Your task to perform on an android device: Clear the cart on walmart. Add bose quietcomfort 35 to the cart on walmart Image 0: 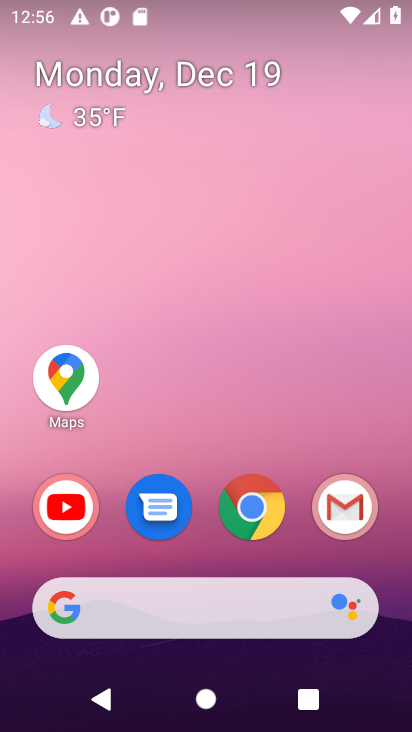
Step 0: click (247, 508)
Your task to perform on an android device: Clear the cart on walmart. Add bose quietcomfort 35 to the cart on walmart Image 1: 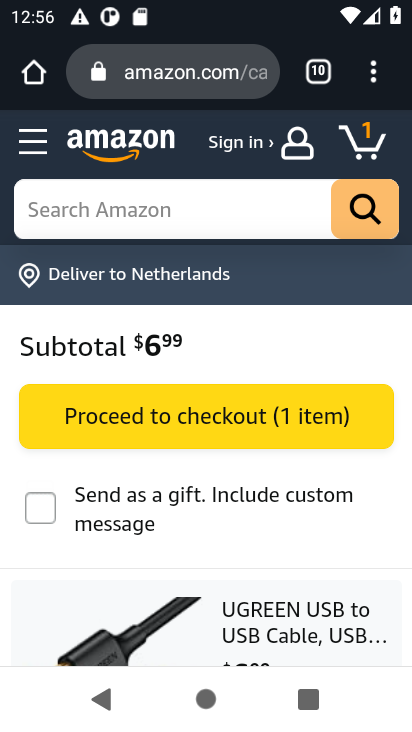
Step 1: click (161, 76)
Your task to perform on an android device: Clear the cart on walmart. Add bose quietcomfort 35 to the cart on walmart Image 2: 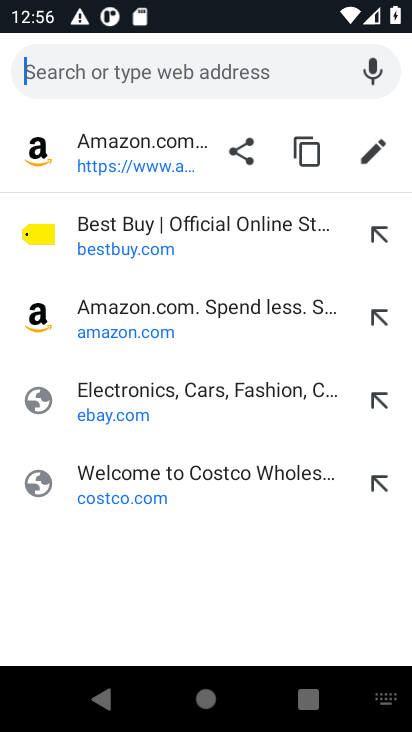
Step 2: type "walmart.com"
Your task to perform on an android device: Clear the cart on walmart. Add bose quietcomfort 35 to the cart on walmart Image 3: 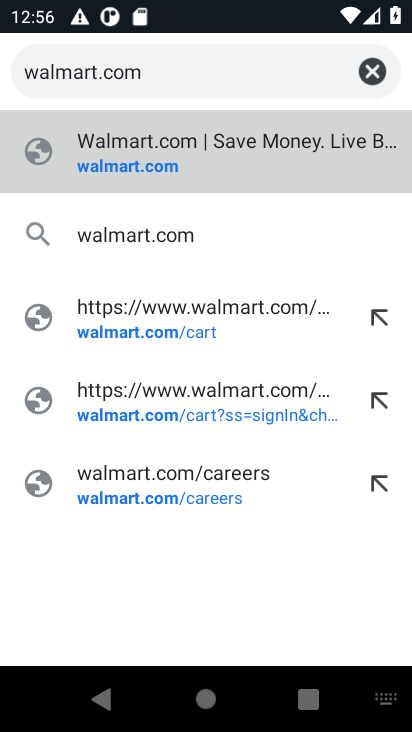
Step 3: click (148, 172)
Your task to perform on an android device: Clear the cart on walmart. Add bose quietcomfort 35 to the cart on walmart Image 4: 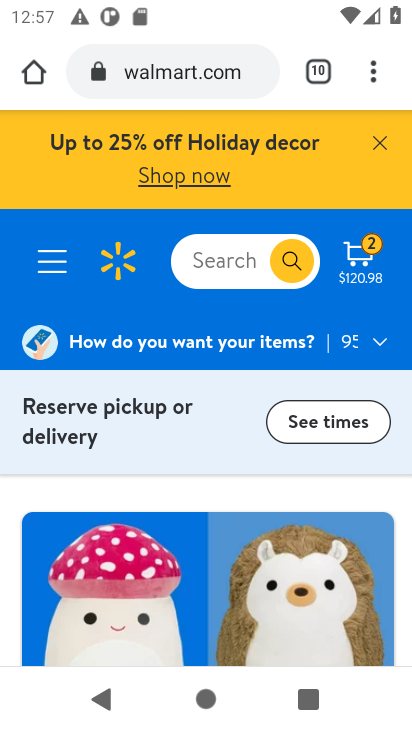
Step 4: click (355, 259)
Your task to perform on an android device: Clear the cart on walmart. Add bose quietcomfort 35 to the cart on walmart Image 5: 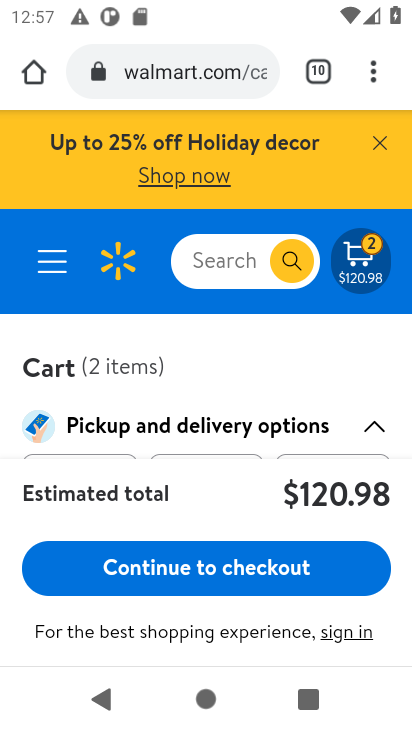
Step 5: drag from (201, 428) to (193, 235)
Your task to perform on an android device: Clear the cart on walmart. Add bose quietcomfort 35 to the cart on walmart Image 6: 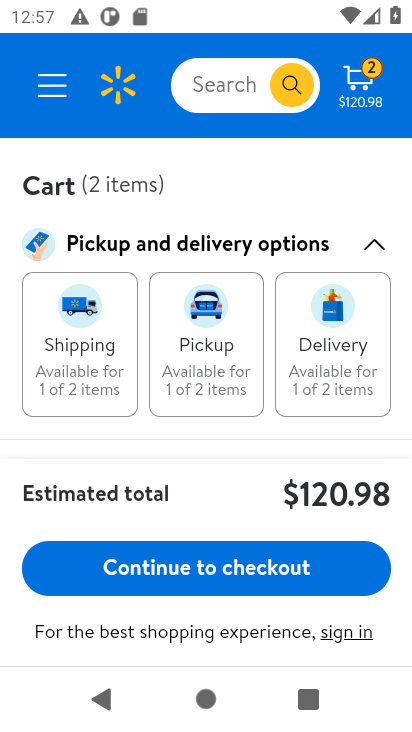
Step 6: drag from (187, 419) to (176, 153)
Your task to perform on an android device: Clear the cart on walmart. Add bose quietcomfort 35 to the cart on walmart Image 7: 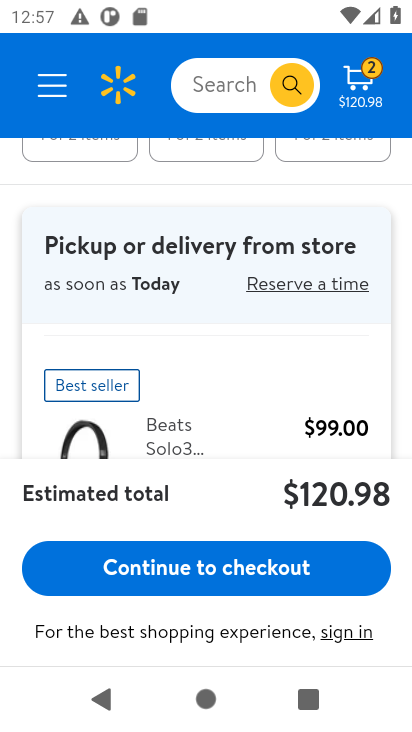
Step 7: drag from (165, 376) to (147, 133)
Your task to perform on an android device: Clear the cart on walmart. Add bose quietcomfort 35 to the cart on walmart Image 8: 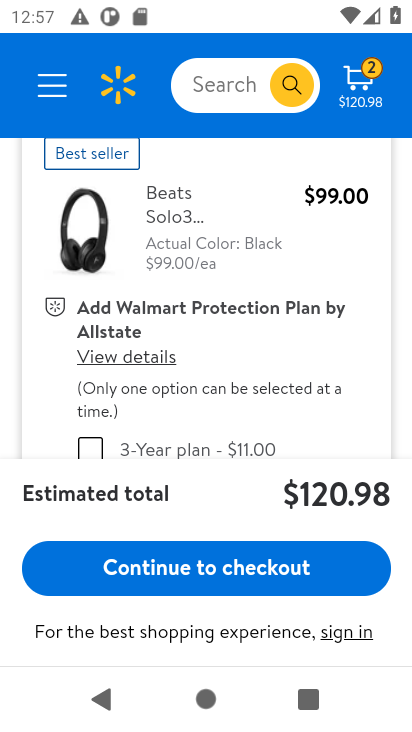
Step 8: drag from (142, 356) to (147, 148)
Your task to perform on an android device: Clear the cart on walmart. Add bose quietcomfort 35 to the cart on walmart Image 9: 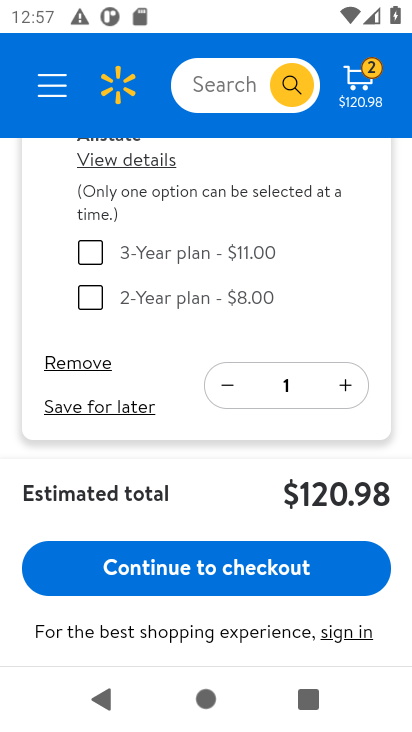
Step 9: click (72, 356)
Your task to perform on an android device: Clear the cart on walmart. Add bose quietcomfort 35 to the cart on walmart Image 10: 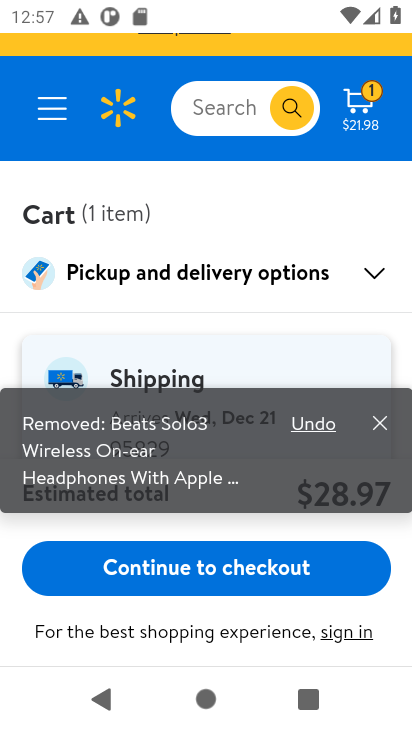
Step 10: click (377, 428)
Your task to perform on an android device: Clear the cart on walmart. Add bose quietcomfort 35 to the cart on walmart Image 11: 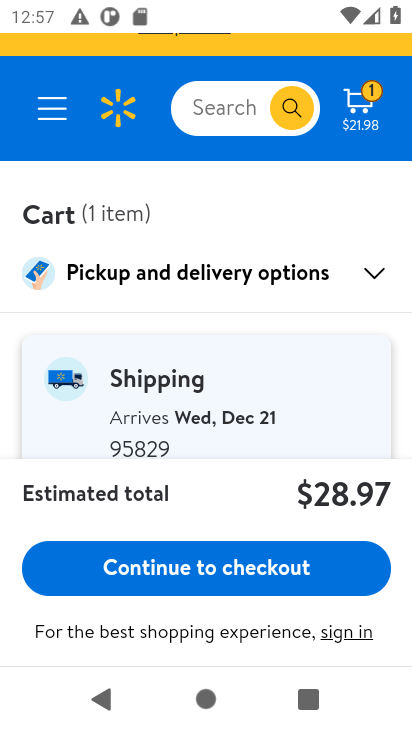
Step 11: drag from (143, 415) to (138, 151)
Your task to perform on an android device: Clear the cart on walmart. Add bose quietcomfort 35 to the cart on walmart Image 12: 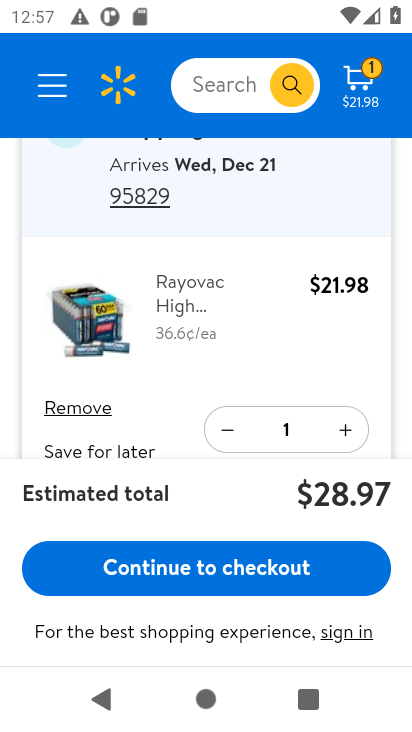
Step 12: drag from (93, 372) to (98, 218)
Your task to perform on an android device: Clear the cart on walmart. Add bose quietcomfort 35 to the cart on walmart Image 13: 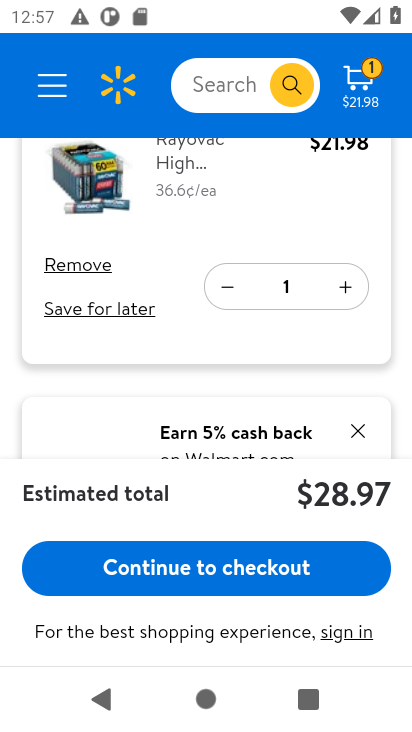
Step 13: click (73, 262)
Your task to perform on an android device: Clear the cart on walmart. Add bose quietcomfort 35 to the cart on walmart Image 14: 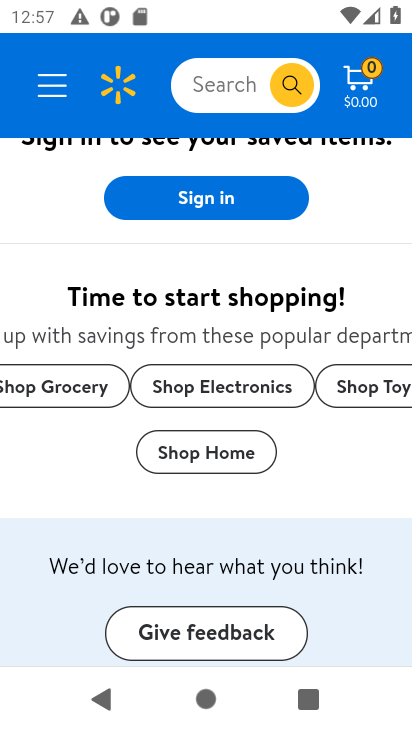
Step 14: drag from (254, 404) to (228, 682)
Your task to perform on an android device: Clear the cart on walmart. Add bose quietcomfort 35 to the cart on walmart Image 15: 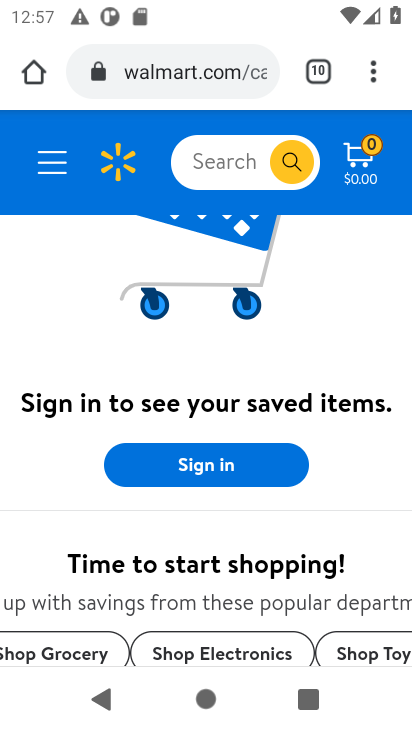
Step 15: click (219, 160)
Your task to perform on an android device: Clear the cart on walmart. Add bose quietcomfort 35 to the cart on walmart Image 16: 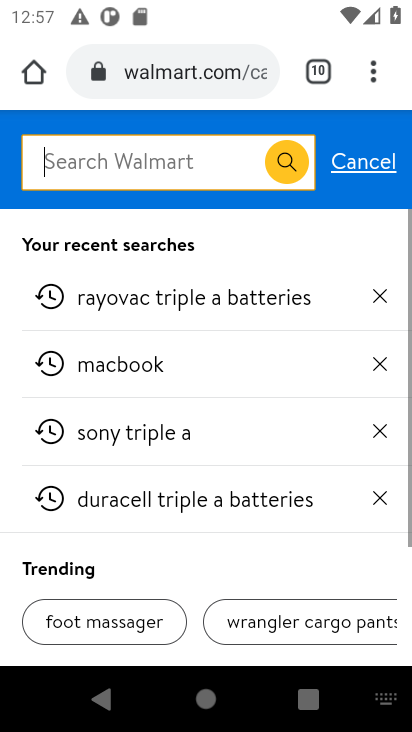
Step 16: type "bose quietcomfort 35"
Your task to perform on an android device: Clear the cart on walmart. Add bose quietcomfort 35 to the cart on walmart Image 17: 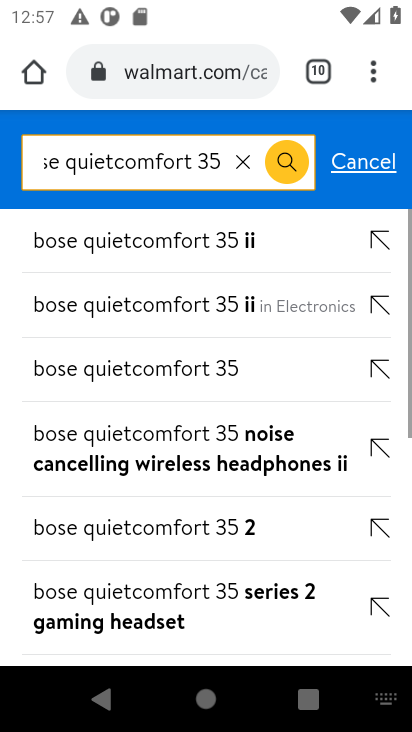
Step 17: click (215, 380)
Your task to perform on an android device: Clear the cart on walmart. Add bose quietcomfort 35 to the cart on walmart Image 18: 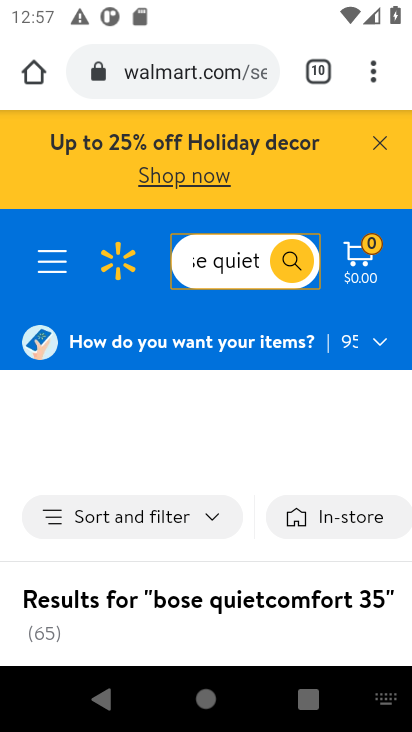
Step 18: drag from (225, 444) to (214, 208)
Your task to perform on an android device: Clear the cart on walmart. Add bose quietcomfort 35 to the cart on walmart Image 19: 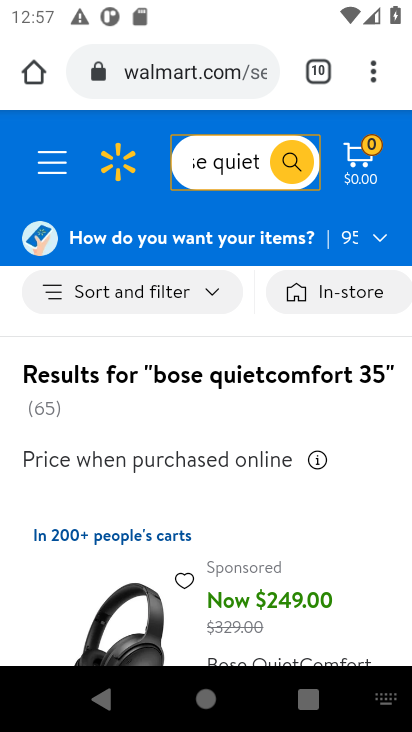
Step 19: drag from (191, 406) to (191, 193)
Your task to perform on an android device: Clear the cart on walmart. Add bose quietcomfort 35 to the cart on walmart Image 20: 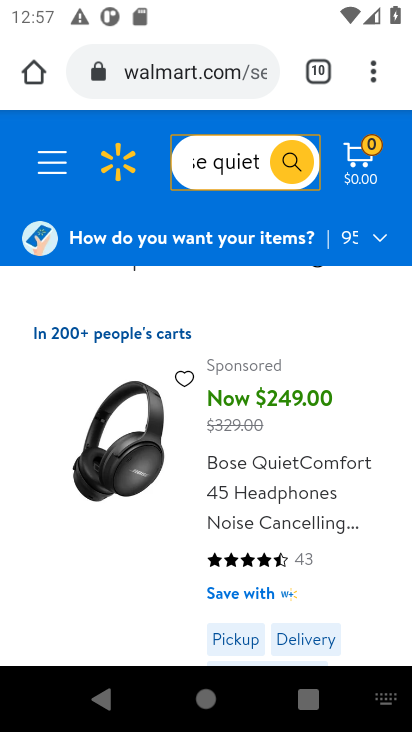
Step 20: drag from (174, 457) to (165, 218)
Your task to perform on an android device: Clear the cart on walmart. Add bose quietcomfort 35 to the cart on walmart Image 21: 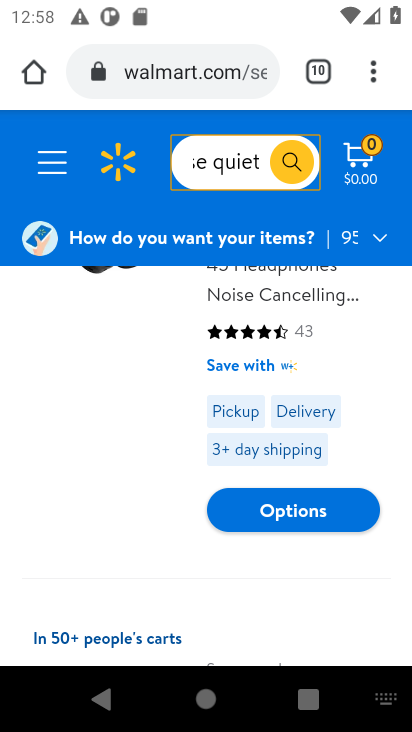
Step 21: drag from (174, 448) to (169, 163)
Your task to perform on an android device: Clear the cart on walmart. Add bose quietcomfort 35 to the cart on walmart Image 22: 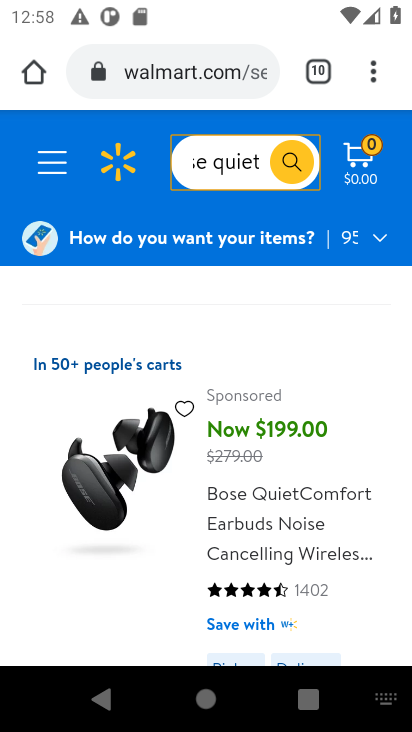
Step 22: drag from (155, 496) to (161, 208)
Your task to perform on an android device: Clear the cart on walmart. Add bose quietcomfort 35 to the cart on walmart Image 23: 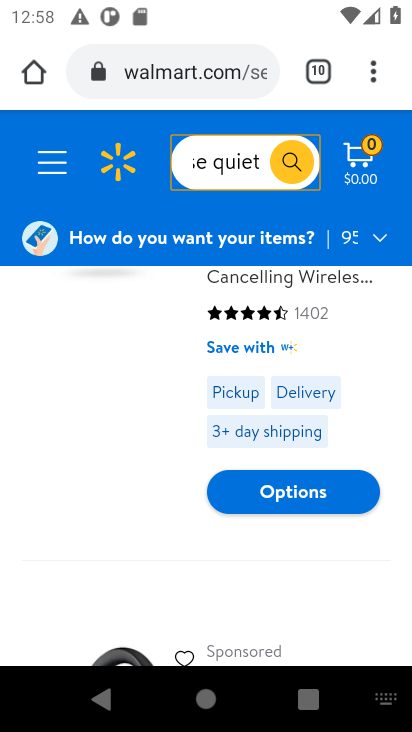
Step 23: drag from (103, 498) to (103, 168)
Your task to perform on an android device: Clear the cart on walmart. Add bose quietcomfort 35 to the cart on walmart Image 24: 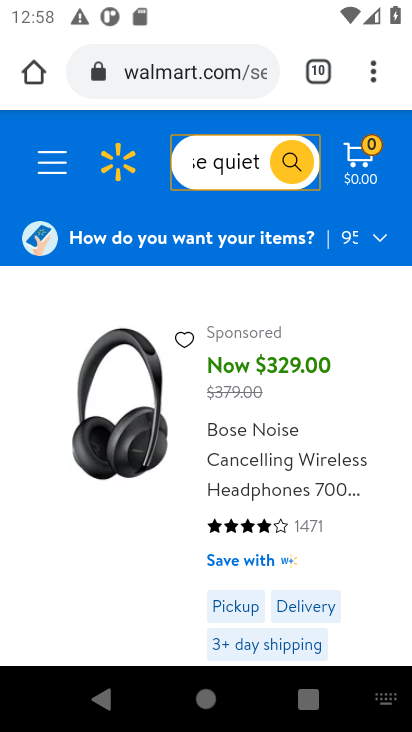
Step 24: drag from (81, 476) to (78, 168)
Your task to perform on an android device: Clear the cart on walmart. Add bose quietcomfort 35 to the cart on walmart Image 25: 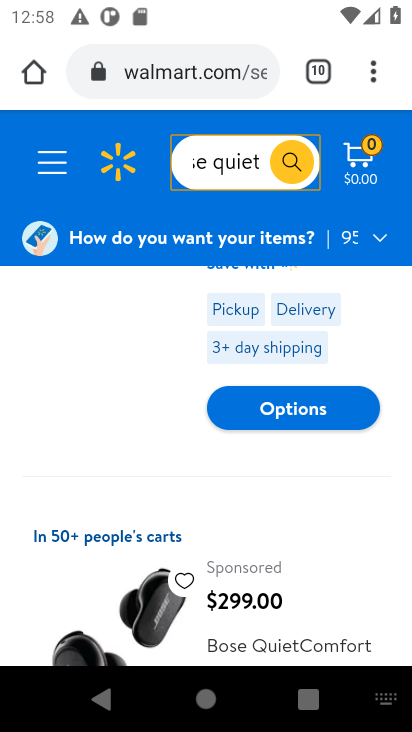
Step 25: drag from (69, 493) to (78, 191)
Your task to perform on an android device: Clear the cart on walmart. Add bose quietcomfort 35 to the cart on walmart Image 26: 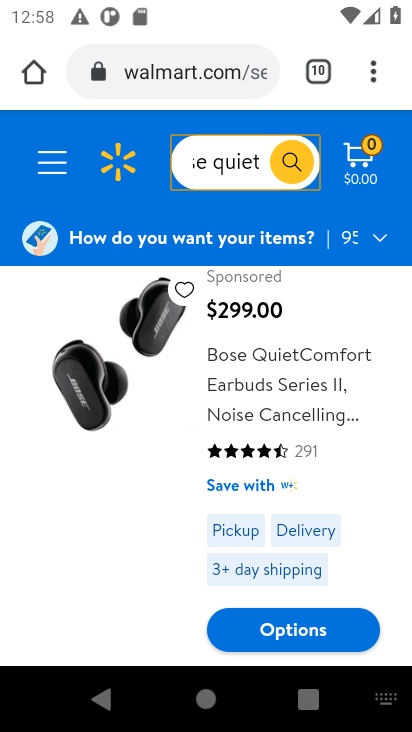
Step 26: drag from (75, 491) to (78, 157)
Your task to perform on an android device: Clear the cart on walmart. Add bose quietcomfort 35 to the cart on walmart Image 27: 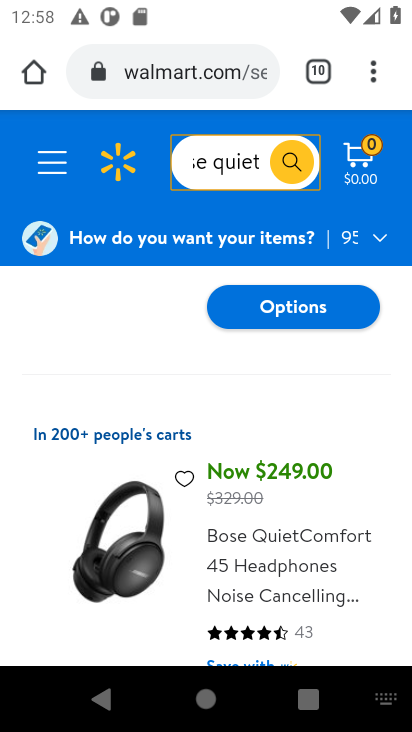
Step 27: drag from (127, 506) to (121, 147)
Your task to perform on an android device: Clear the cart on walmart. Add bose quietcomfort 35 to the cart on walmart Image 28: 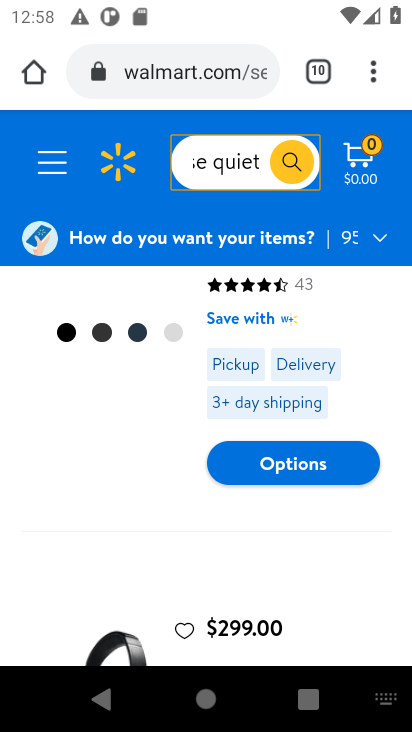
Step 28: drag from (89, 495) to (89, 119)
Your task to perform on an android device: Clear the cart on walmart. Add bose quietcomfort 35 to the cart on walmart Image 29: 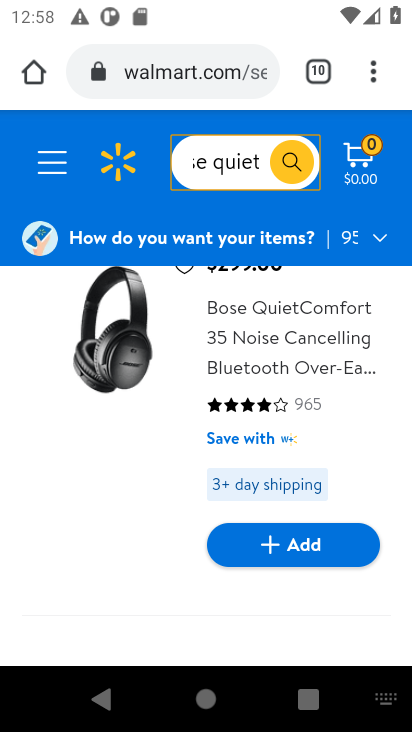
Step 29: click (267, 555)
Your task to perform on an android device: Clear the cart on walmart. Add bose quietcomfort 35 to the cart on walmart Image 30: 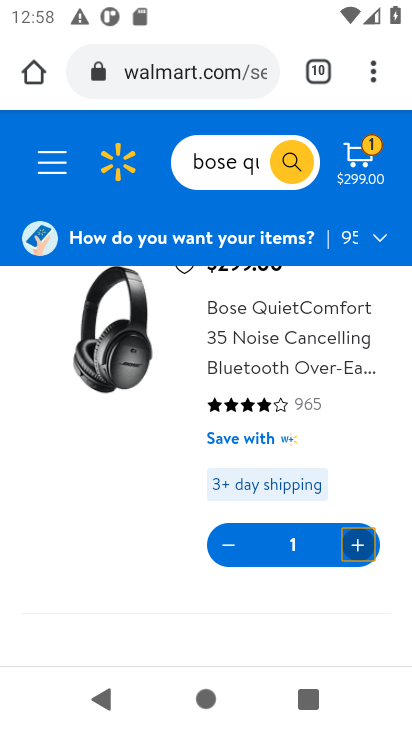
Step 30: task complete